Your task to perform on an android device: star an email in the gmail app Image 0: 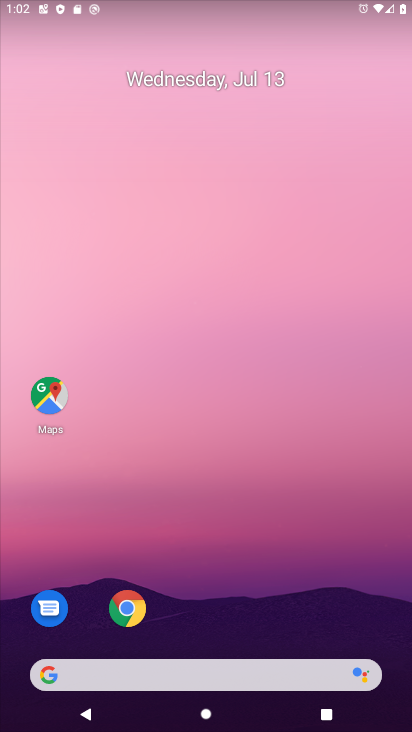
Step 0: drag from (216, 508) to (284, 53)
Your task to perform on an android device: star an email in the gmail app Image 1: 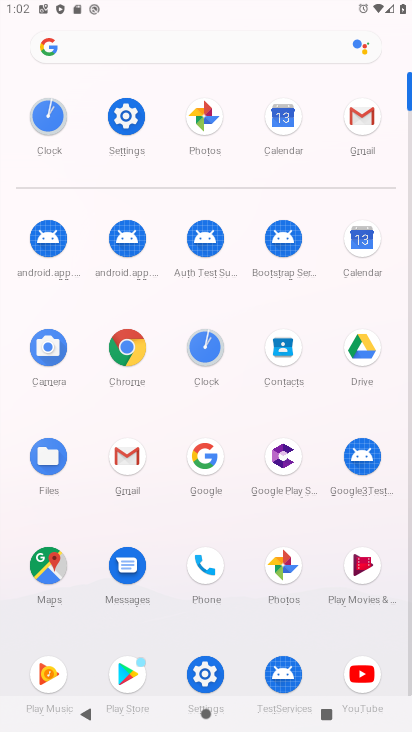
Step 1: click (353, 122)
Your task to perform on an android device: star an email in the gmail app Image 2: 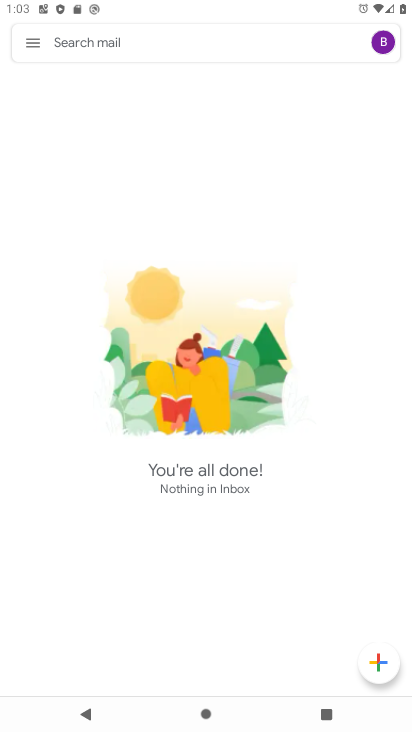
Step 2: click (32, 40)
Your task to perform on an android device: star an email in the gmail app Image 3: 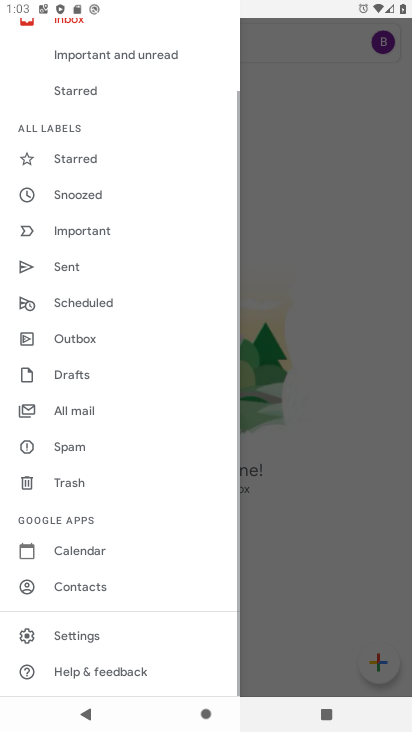
Step 3: click (96, 411)
Your task to perform on an android device: star an email in the gmail app Image 4: 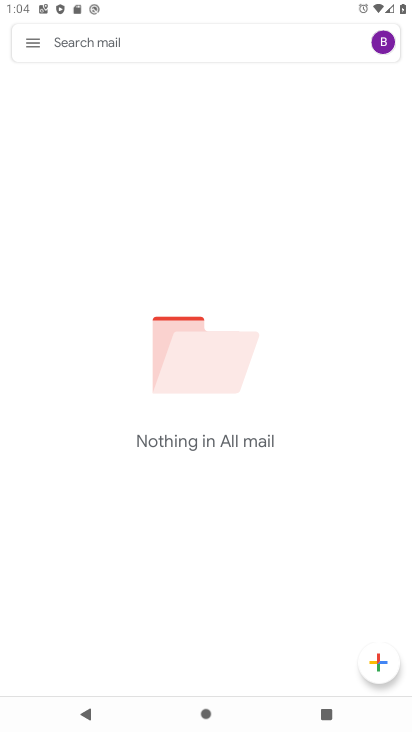
Step 4: task complete